Your task to perform on an android device: move an email to a new category in the gmail app Image 0: 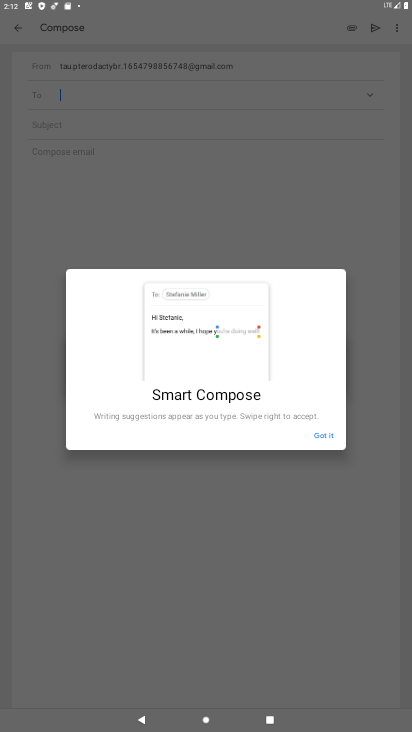
Step 0: press home button
Your task to perform on an android device: move an email to a new category in the gmail app Image 1: 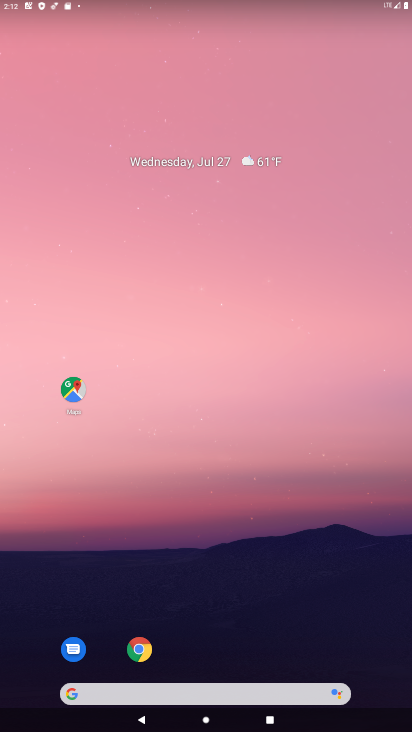
Step 1: drag from (184, 653) to (184, 185)
Your task to perform on an android device: move an email to a new category in the gmail app Image 2: 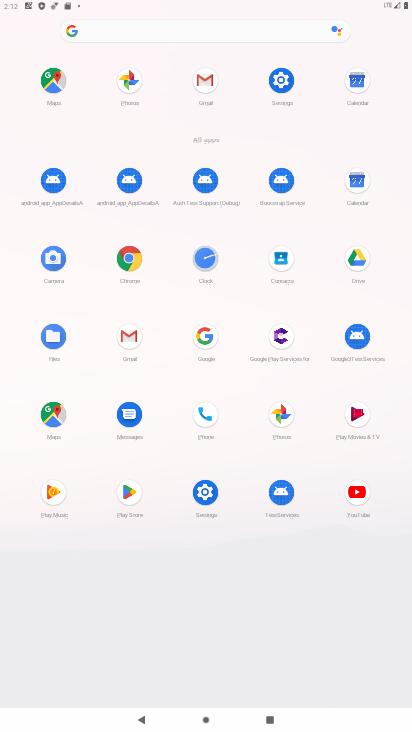
Step 2: click (209, 85)
Your task to perform on an android device: move an email to a new category in the gmail app Image 3: 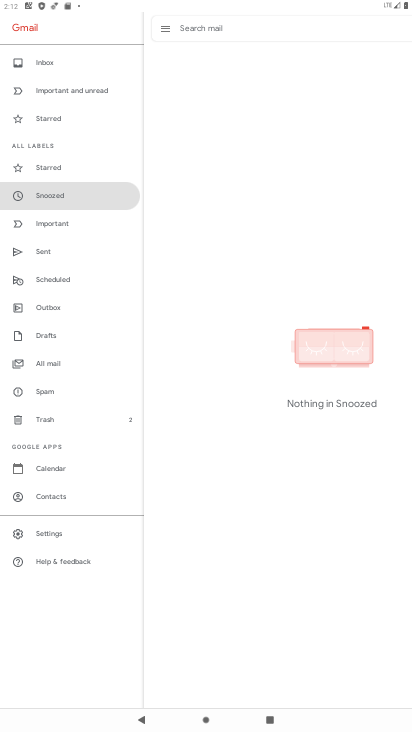
Step 3: click (52, 368)
Your task to perform on an android device: move an email to a new category in the gmail app Image 4: 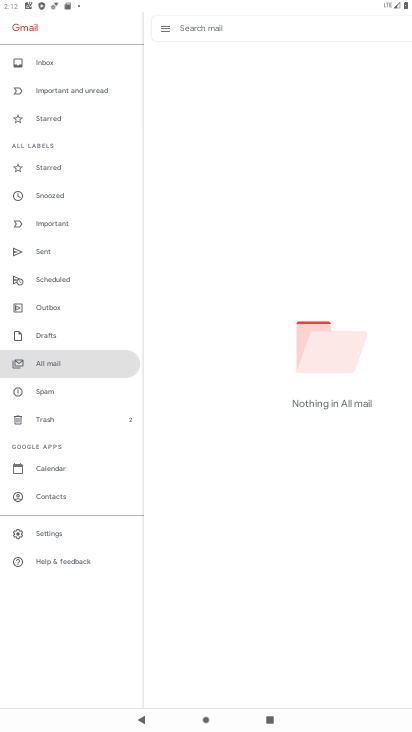
Step 4: task complete